Your task to perform on an android device: turn on javascript in the chrome app Image 0: 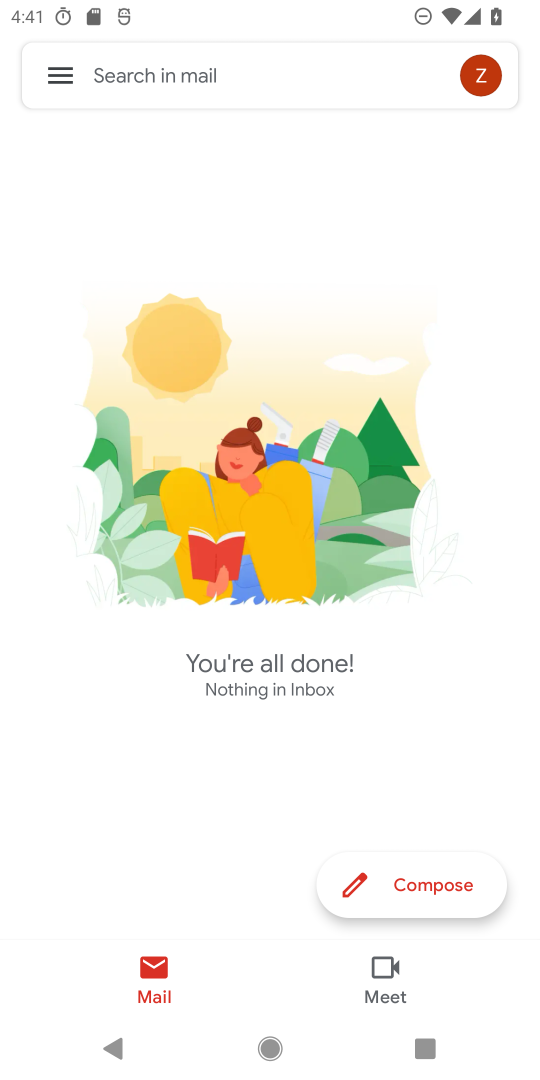
Step 0: press home button
Your task to perform on an android device: turn on javascript in the chrome app Image 1: 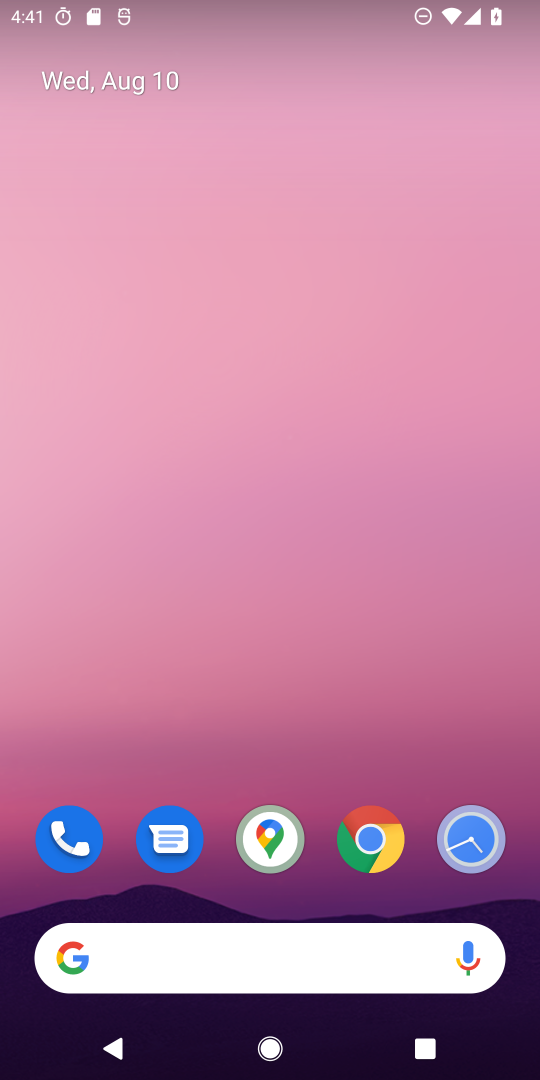
Step 1: click (377, 841)
Your task to perform on an android device: turn on javascript in the chrome app Image 2: 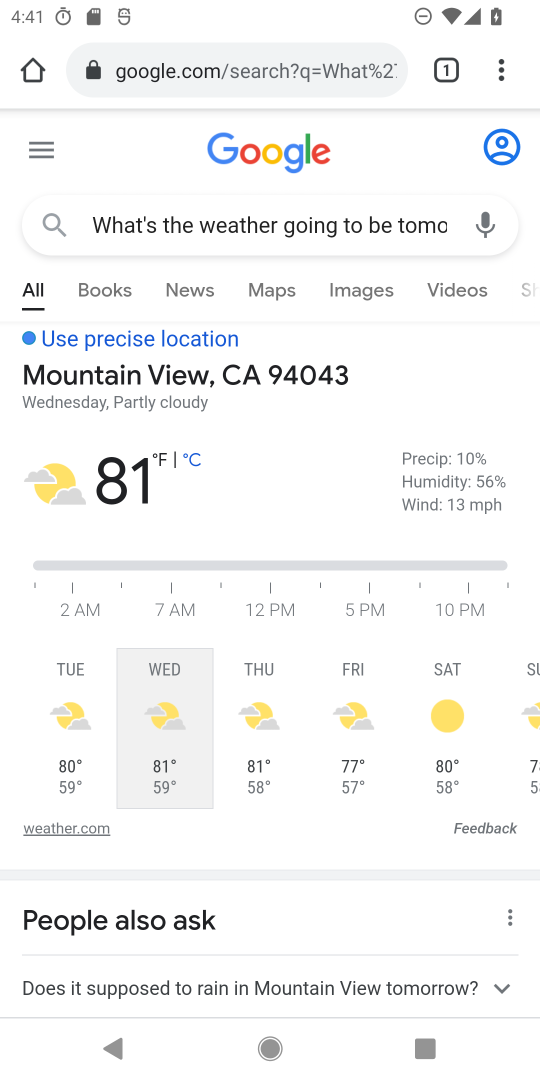
Step 2: click (510, 65)
Your task to perform on an android device: turn on javascript in the chrome app Image 3: 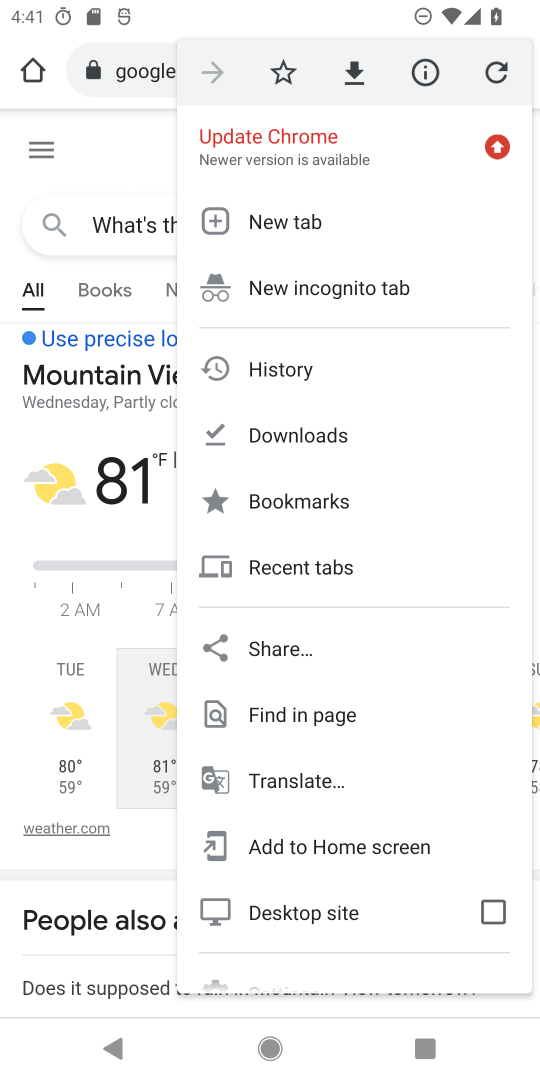
Step 3: drag from (399, 960) to (401, 525)
Your task to perform on an android device: turn on javascript in the chrome app Image 4: 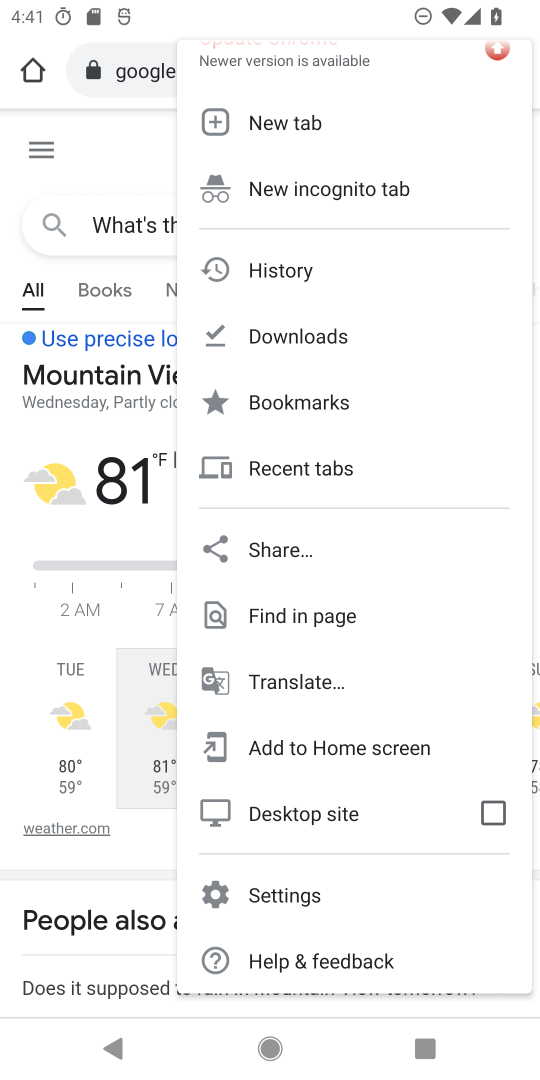
Step 4: click (274, 886)
Your task to perform on an android device: turn on javascript in the chrome app Image 5: 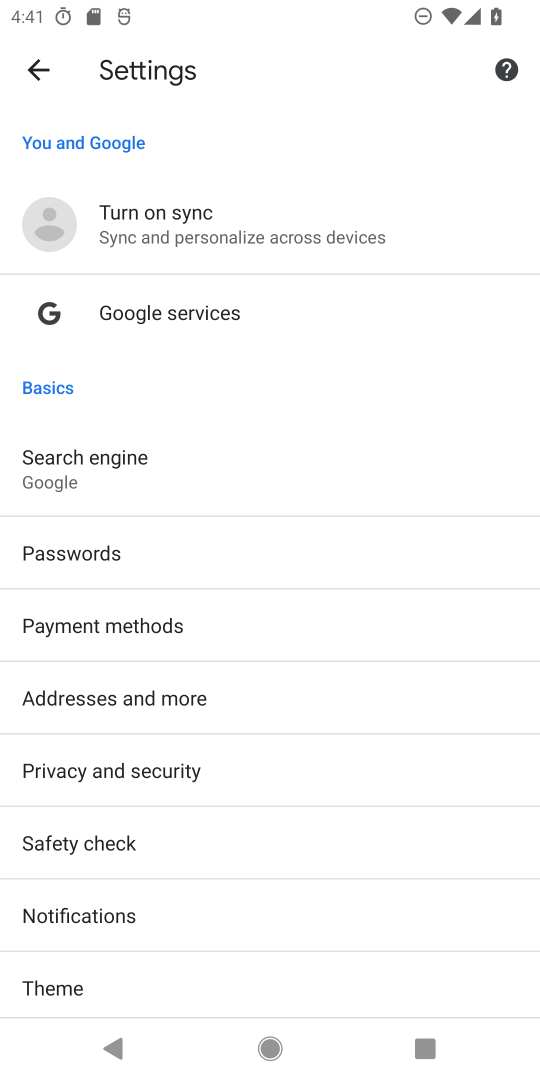
Step 5: drag from (324, 963) to (399, 722)
Your task to perform on an android device: turn on javascript in the chrome app Image 6: 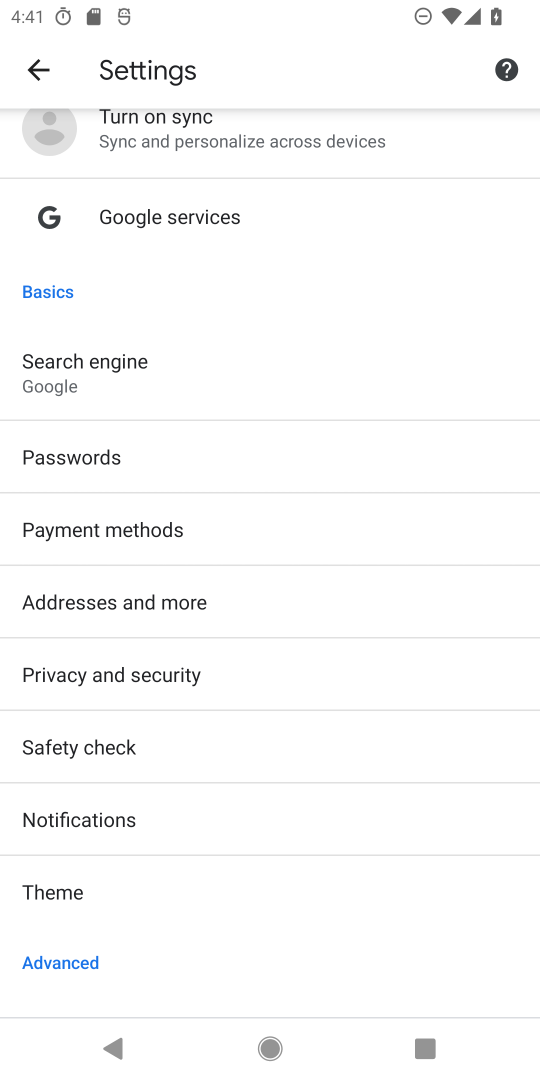
Step 6: drag from (391, 868) to (345, 387)
Your task to perform on an android device: turn on javascript in the chrome app Image 7: 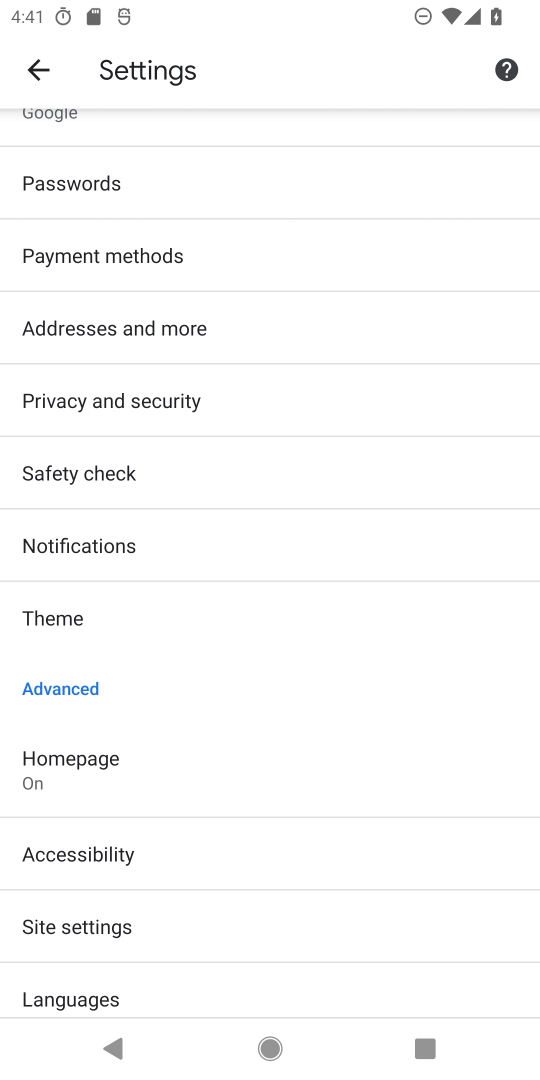
Step 7: drag from (271, 935) to (340, 559)
Your task to perform on an android device: turn on javascript in the chrome app Image 8: 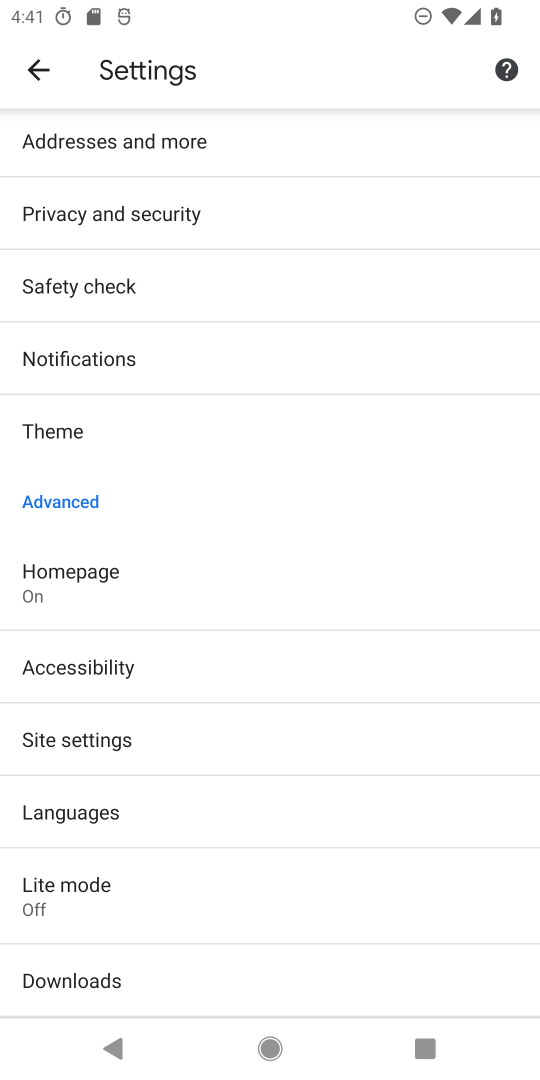
Step 8: click (93, 749)
Your task to perform on an android device: turn on javascript in the chrome app Image 9: 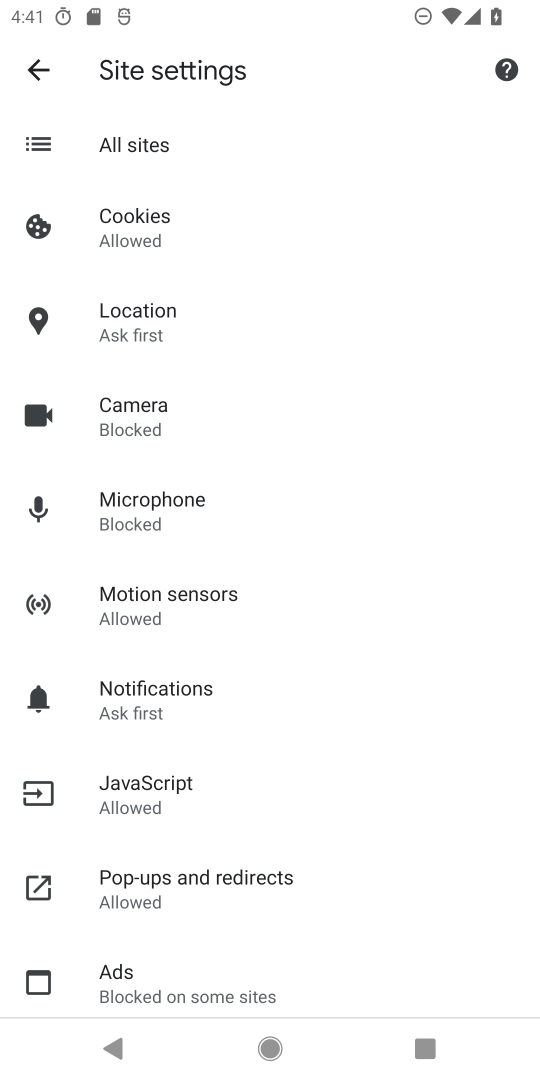
Step 9: click (161, 812)
Your task to perform on an android device: turn on javascript in the chrome app Image 10: 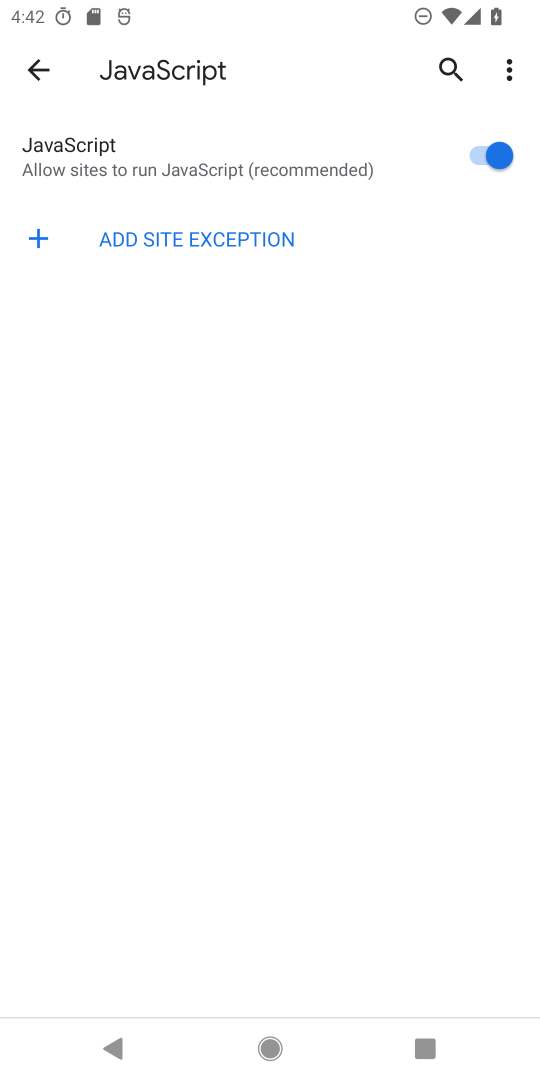
Step 10: task complete